Your task to perform on an android device: Check the news Image 0: 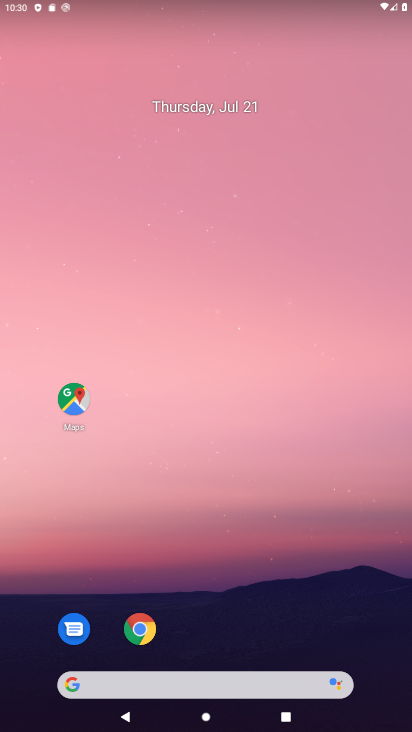
Step 0: click (264, 87)
Your task to perform on an android device: Check the news Image 1: 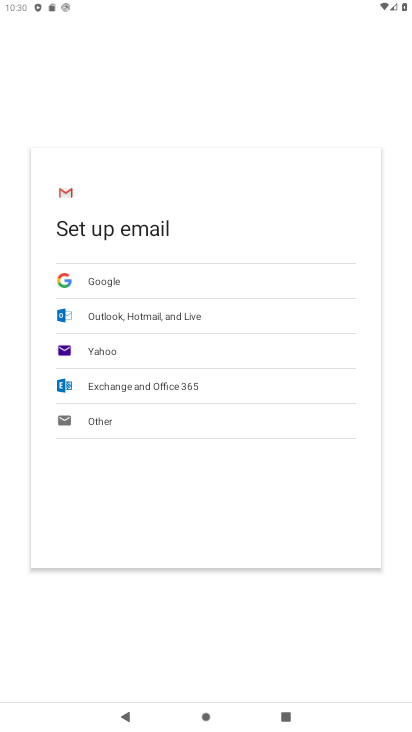
Step 1: press home button
Your task to perform on an android device: Check the news Image 2: 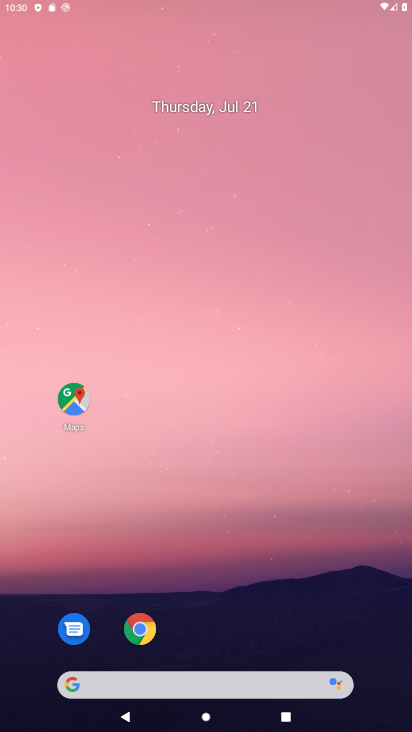
Step 2: drag from (220, 654) to (238, 126)
Your task to perform on an android device: Check the news Image 3: 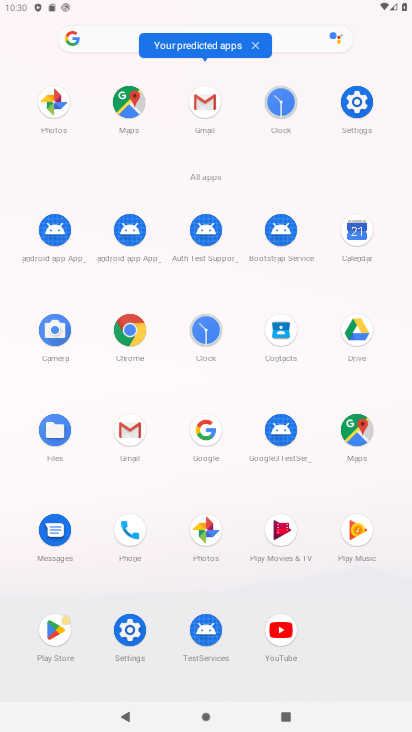
Step 3: click (206, 430)
Your task to perform on an android device: Check the news Image 4: 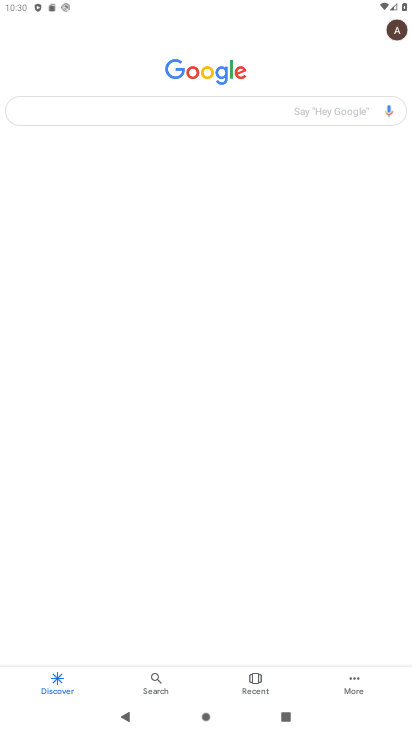
Step 4: click (158, 109)
Your task to perform on an android device: Check the news Image 5: 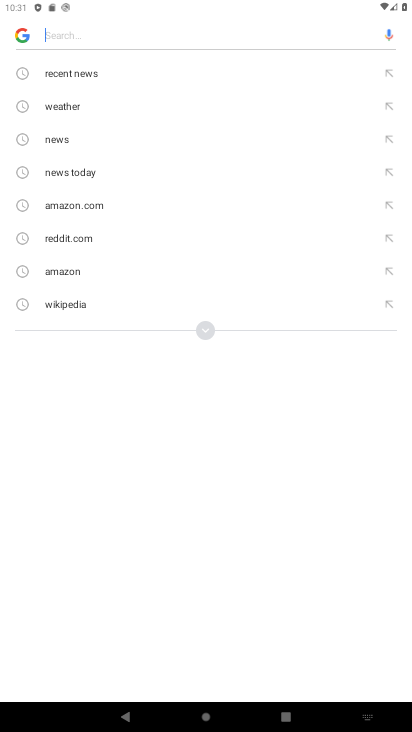
Step 5: type "check the news"
Your task to perform on an android device: Check the news Image 6: 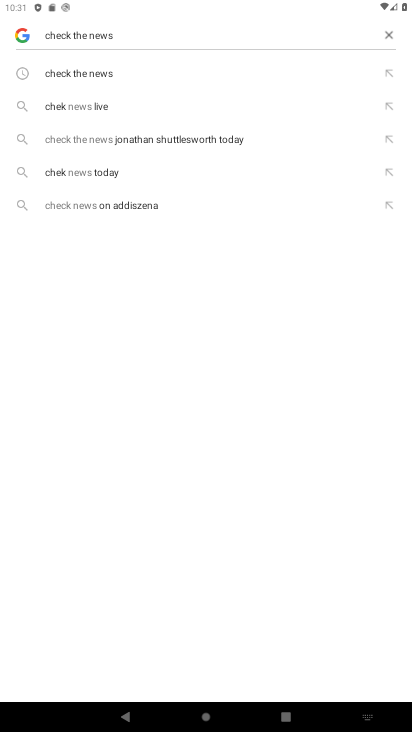
Step 6: click (77, 70)
Your task to perform on an android device: Check the news Image 7: 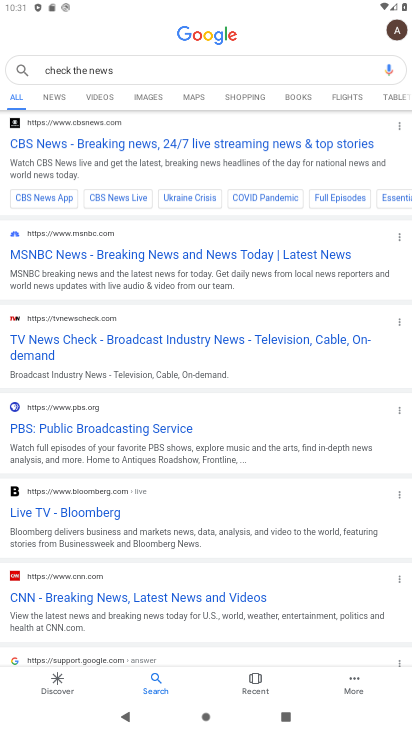
Step 7: task complete